Your task to perform on an android device: Open ESPN.com Image 0: 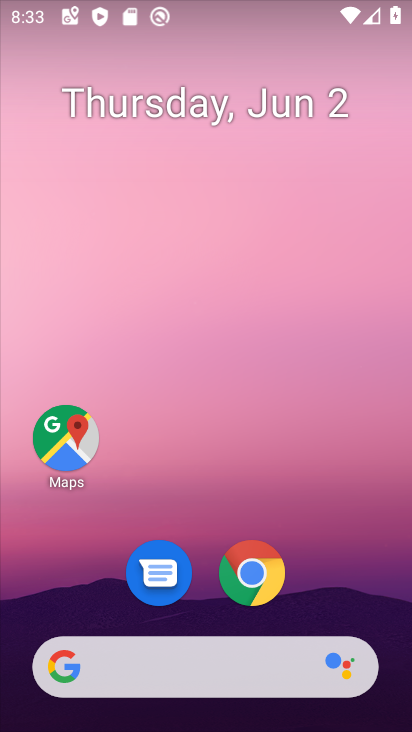
Step 0: click (258, 573)
Your task to perform on an android device: Open ESPN.com Image 1: 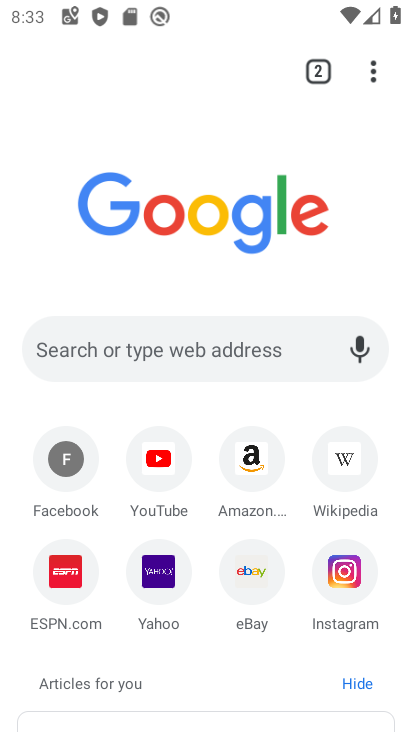
Step 1: click (80, 580)
Your task to perform on an android device: Open ESPN.com Image 2: 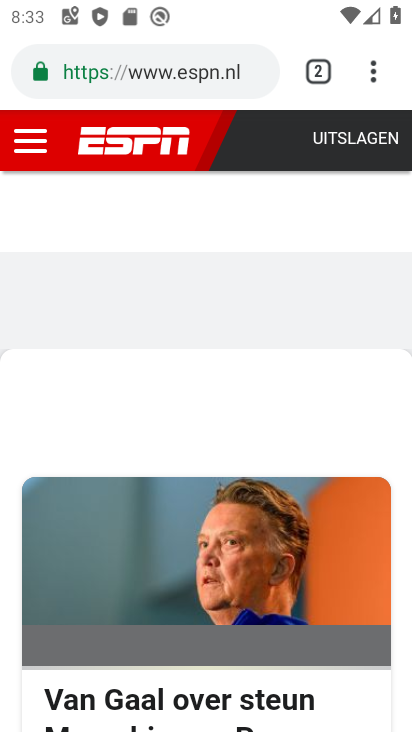
Step 2: task complete